Your task to perform on an android device: change the clock display to digital Image 0: 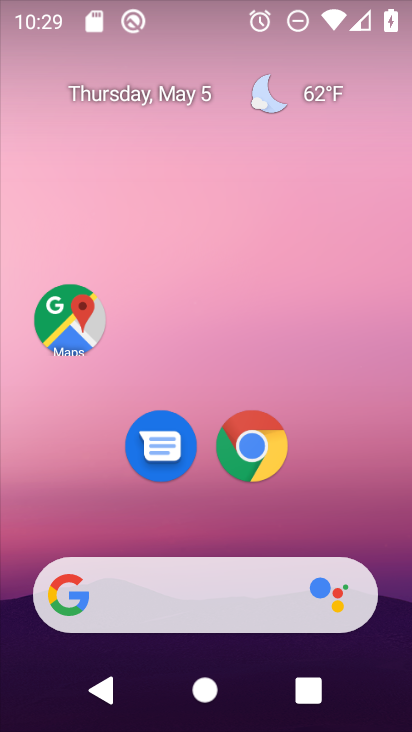
Step 0: drag from (284, 644) to (230, 168)
Your task to perform on an android device: change the clock display to digital Image 1: 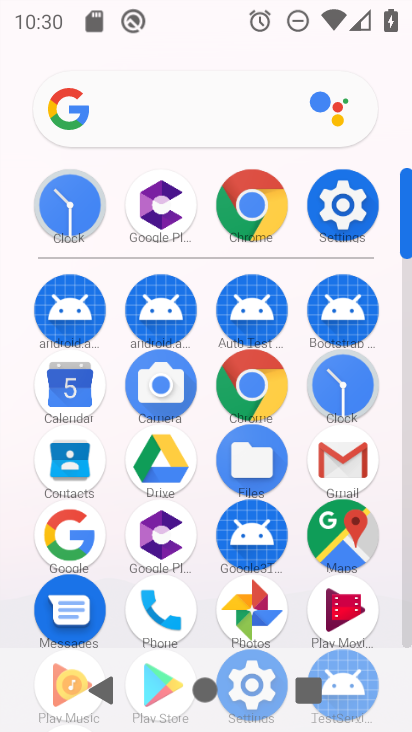
Step 1: click (351, 386)
Your task to perform on an android device: change the clock display to digital Image 2: 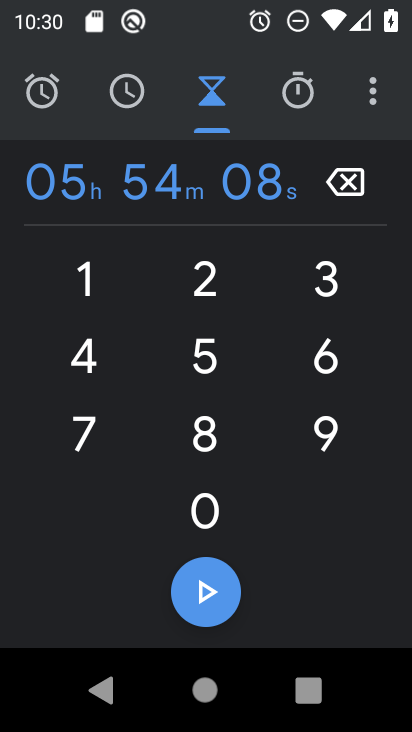
Step 2: click (376, 106)
Your task to perform on an android device: change the clock display to digital Image 3: 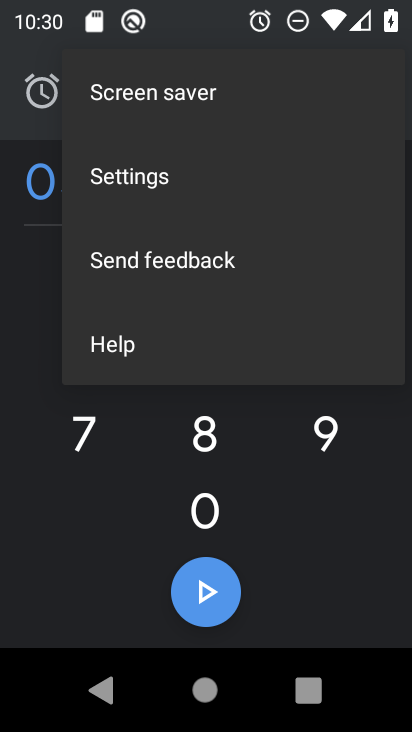
Step 3: click (175, 175)
Your task to perform on an android device: change the clock display to digital Image 4: 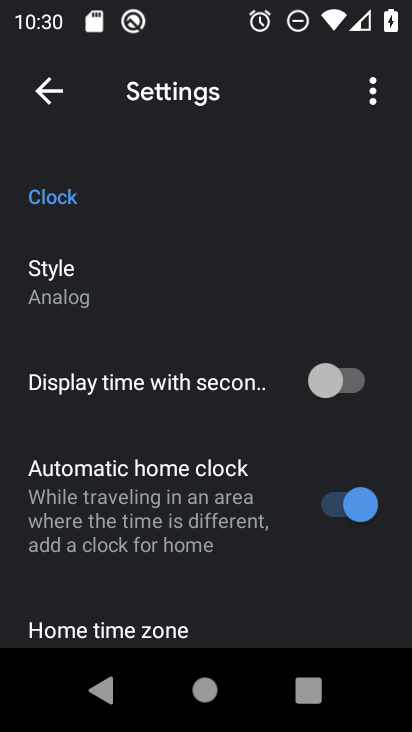
Step 4: drag from (229, 487) to (197, 282)
Your task to perform on an android device: change the clock display to digital Image 5: 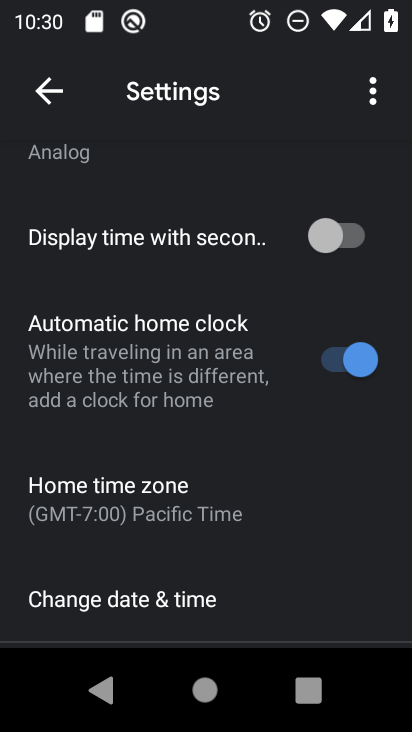
Step 5: drag from (138, 356) to (141, 495)
Your task to perform on an android device: change the clock display to digital Image 6: 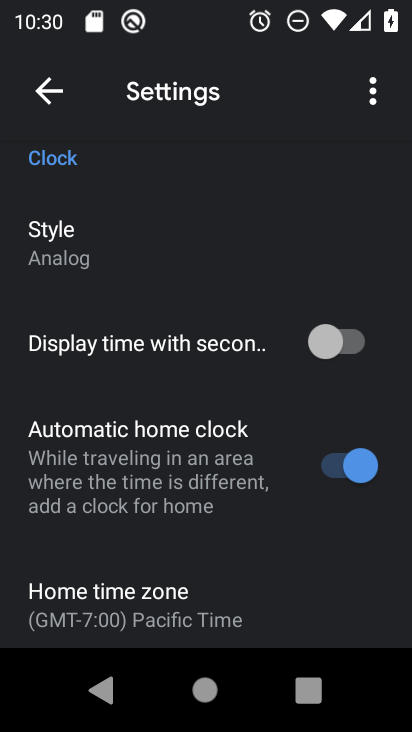
Step 6: click (131, 249)
Your task to perform on an android device: change the clock display to digital Image 7: 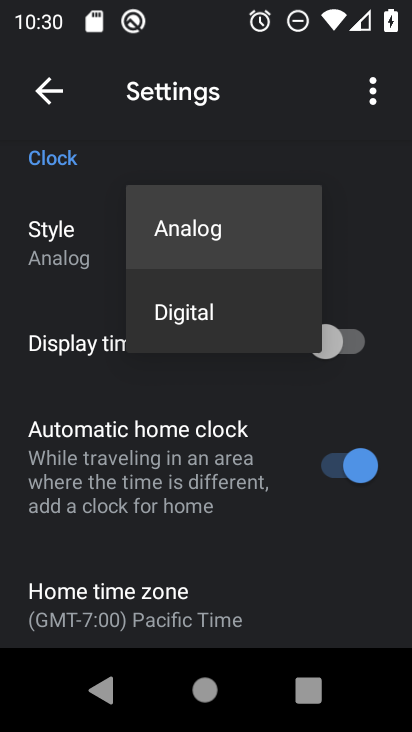
Step 7: click (187, 316)
Your task to perform on an android device: change the clock display to digital Image 8: 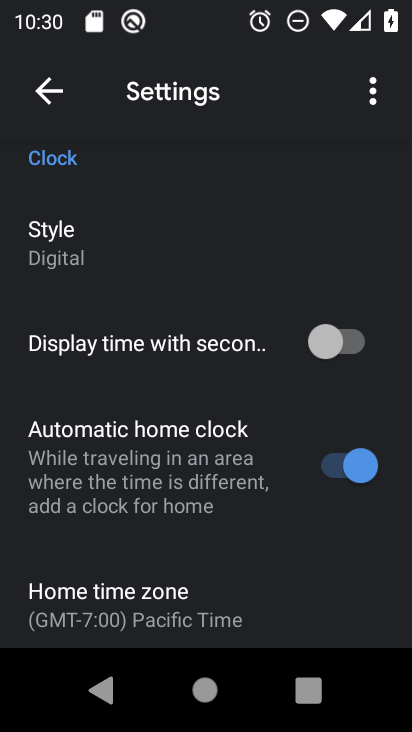
Step 8: task complete